Your task to perform on an android device: open a bookmark in the chrome app Image 0: 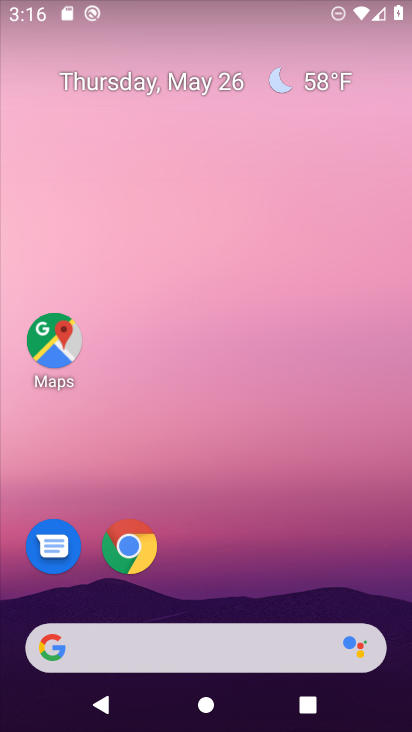
Step 0: press home button
Your task to perform on an android device: open a bookmark in the chrome app Image 1: 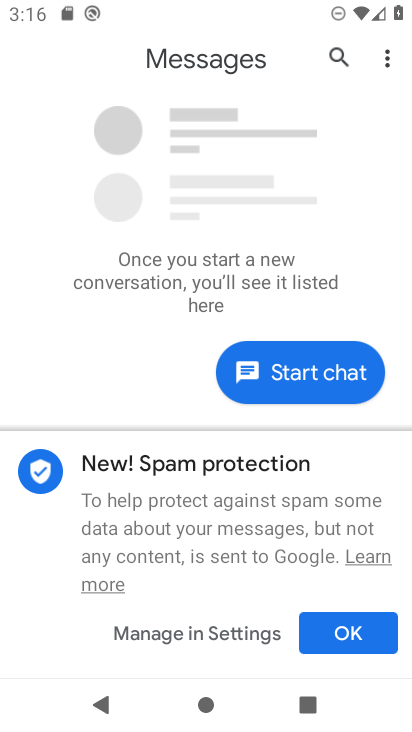
Step 1: click (131, 539)
Your task to perform on an android device: open a bookmark in the chrome app Image 2: 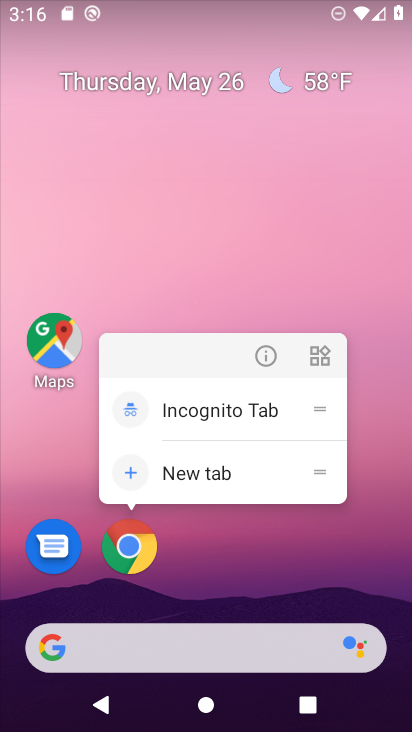
Step 2: click (131, 539)
Your task to perform on an android device: open a bookmark in the chrome app Image 3: 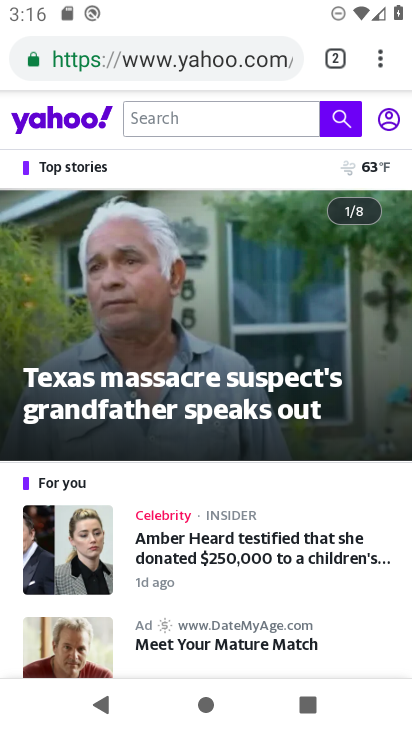
Step 3: click (377, 54)
Your task to perform on an android device: open a bookmark in the chrome app Image 4: 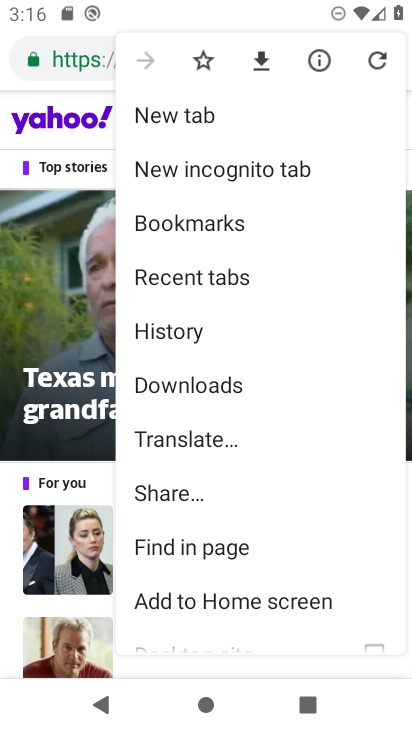
Step 4: click (249, 215)
Your task to perform on an android device: open a bookmark in the chrome app Image 5: 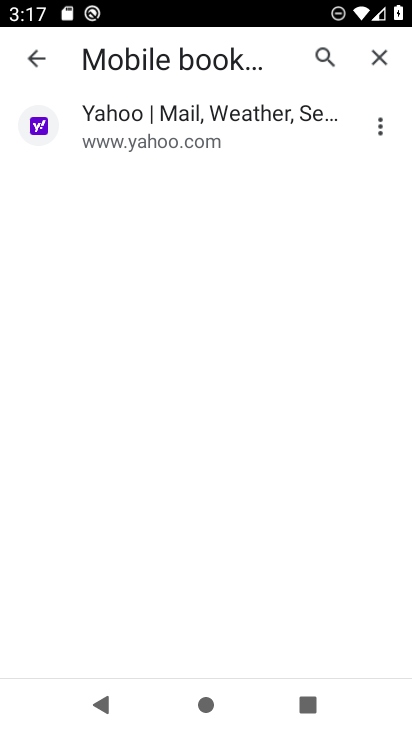
Step 5: click (169, 131)
Your task to perform on an android device: open a bookmark in the chrome app Image 6: 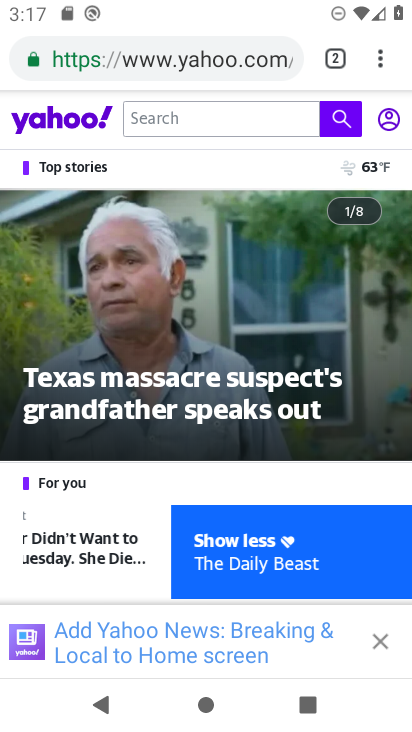
Step 6: task complete